Your task to perform on an android device: open the mobile data screen to see how much data has been used Image 0: 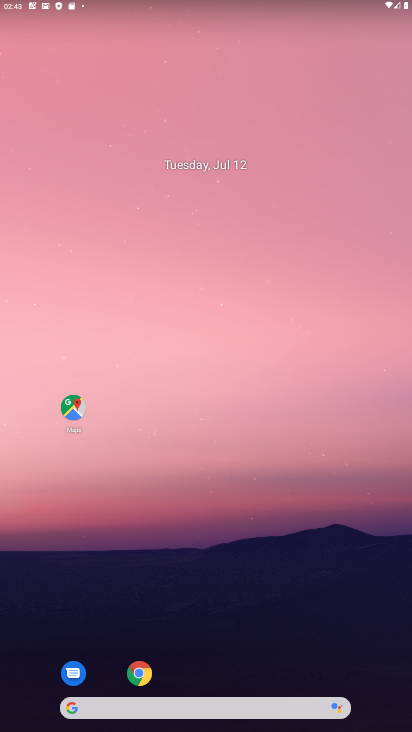
Step 0: press home button
Your task to perform on an android device: open the mobile data screen to see how much data has been used Image 1: 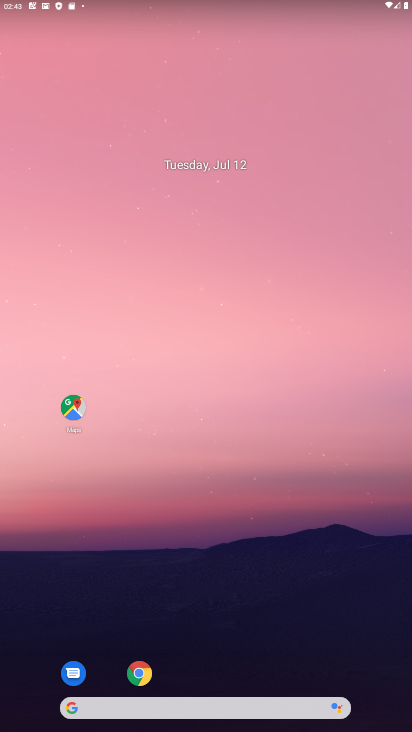
Step 1: drag from (264, 580) to (256, 144)
Your task to perform on an android device: open the mobile data screen to see how much data has been used Image 2: 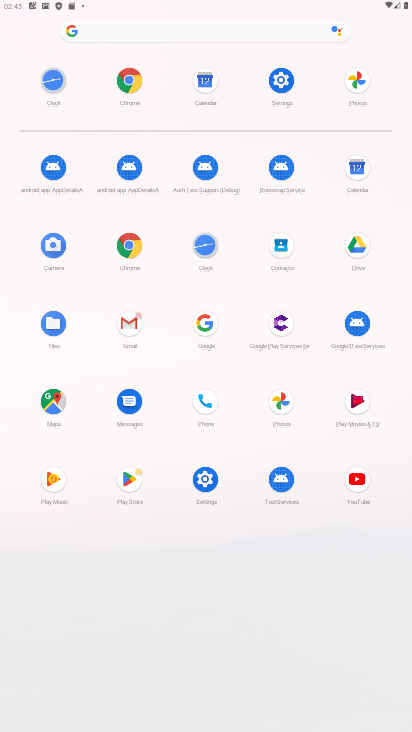
Step 2: click (285, 84)
Your task to perform on an android device: open the mobile data screen to see how much data has been used Image 3: 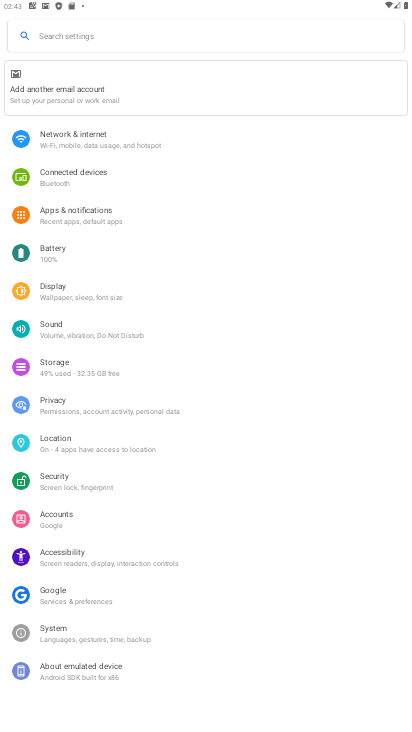
Step 3: click (83, 141)
Your task to perform on an android device: open the mobile data screen to see how much data has been used Image 4: 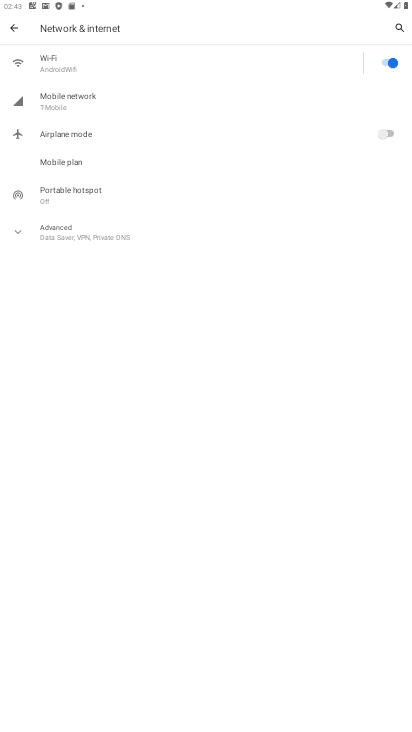
Step 4: click (88, 103)
Your task to perform on an android device: open the mobile data screen to see how much data has been used Image 5: 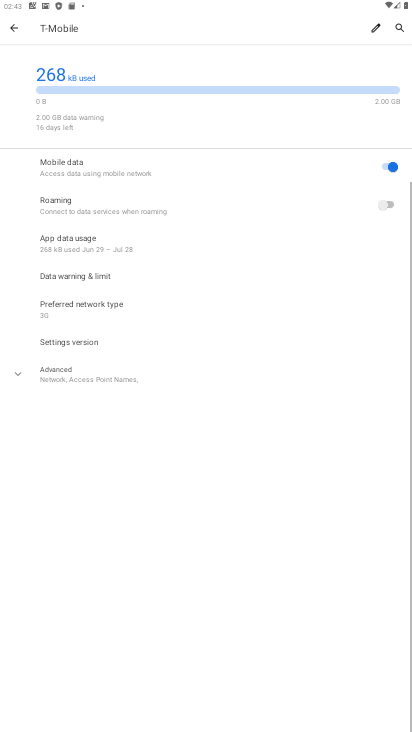
Step 5: click (122, 102)
Your task to perform on an android device: open the mobile data screen to see how much data has been used Image 6: 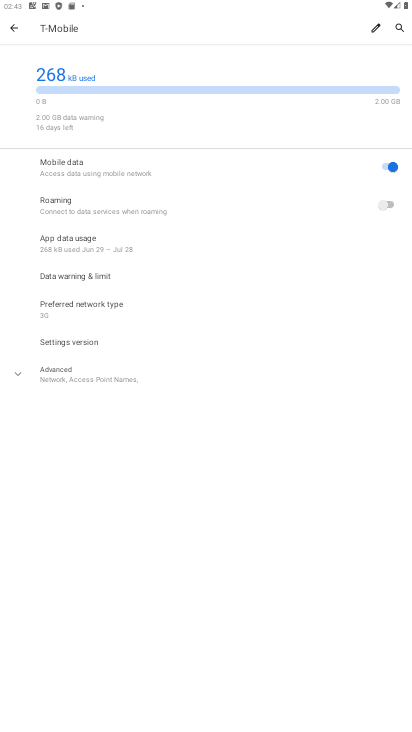
Step 6: task complete